Your task to perform on an android device: Open internet settings Image 0: 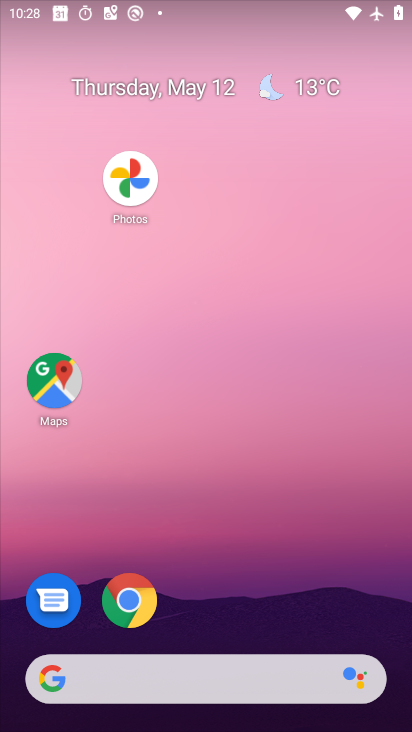
Step 0: drag from (314, 602) to (105, 109)
Your task to perform on an android device: Open internet settings Image 1: 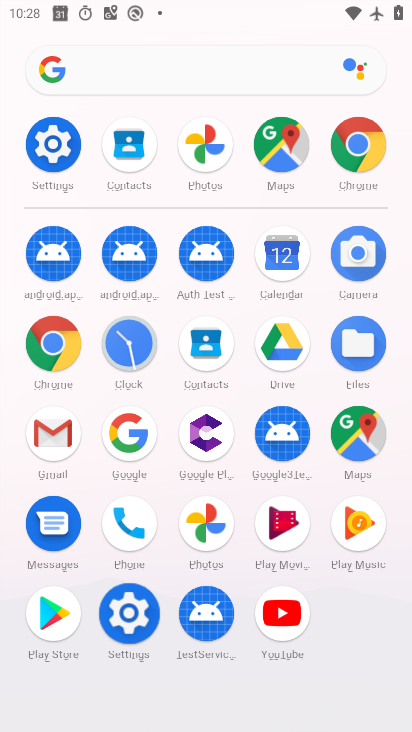
Step 1: click (56, 145)
Your task to perform on an android device: Open internet settings Image 2: 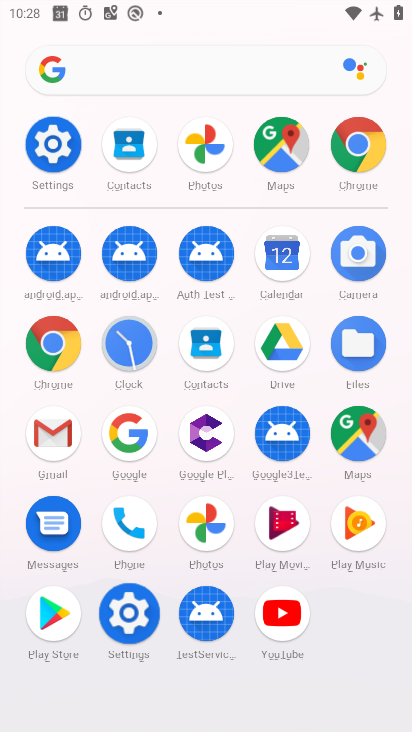
Step 2: click (56, 145)
Your task to perform on an android device: Open internet settings Image 3: 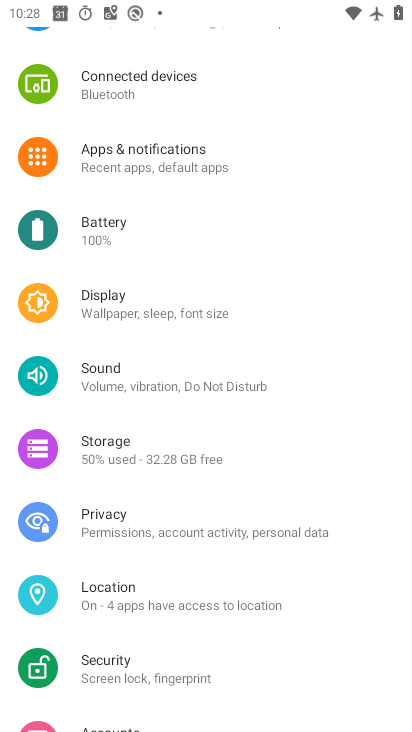
Step 3: drag from (117, 155) to (83, 626)
Your task to perform on an android device: Open internet settings Image 4: 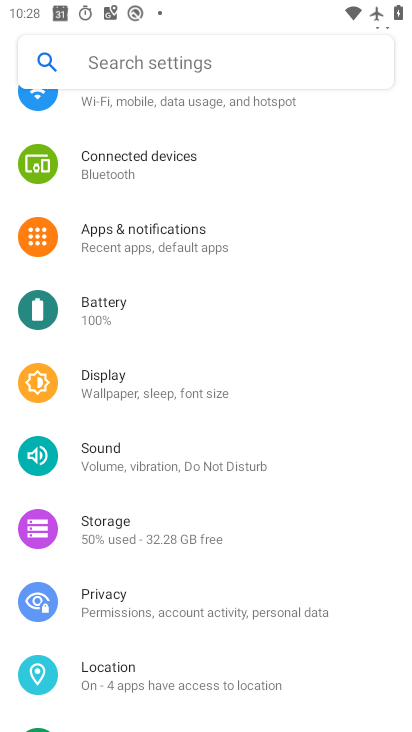
Step 4: drag from (130, 194) to (132, 448)
Your task to perform on an android device: Open internet settings Image 5: 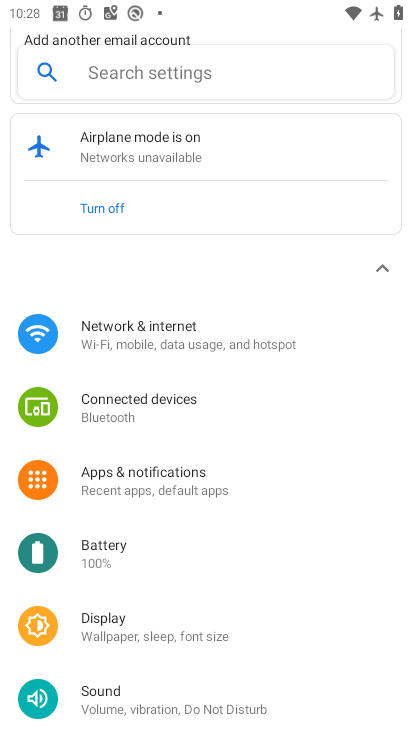
Step 5: drag from (141, 261) to (142, 677)
Your task to perform on an android device: Open internet settings Image 6: 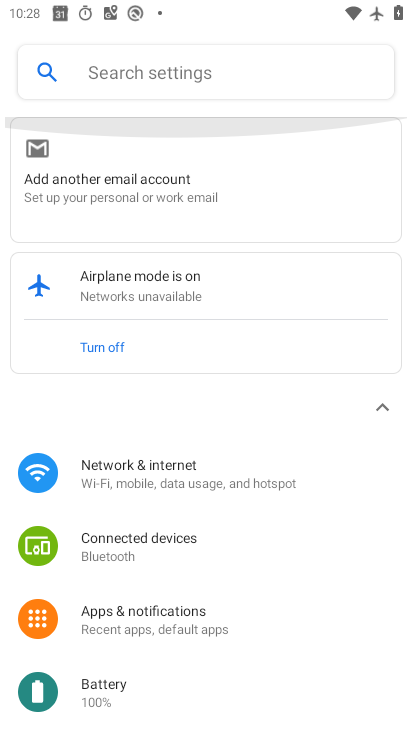
Step 6: drag from (203, 278) to (190, 707)
Your task to perform on an android device: Open internet settings Image 7: 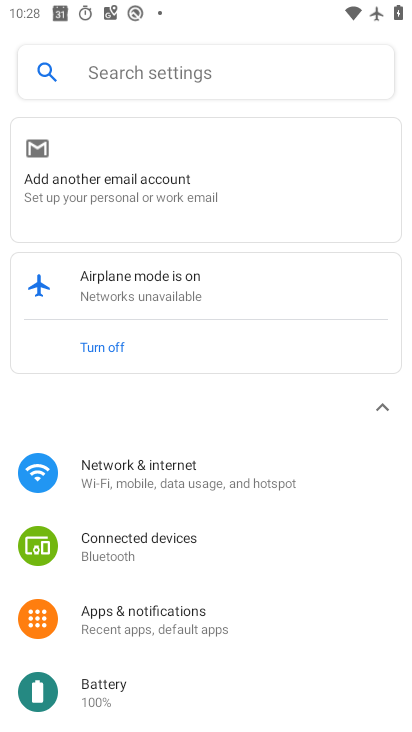
Step 7: click (166, 465)
Your task to perform on an android device: Open internet settings Image 8: 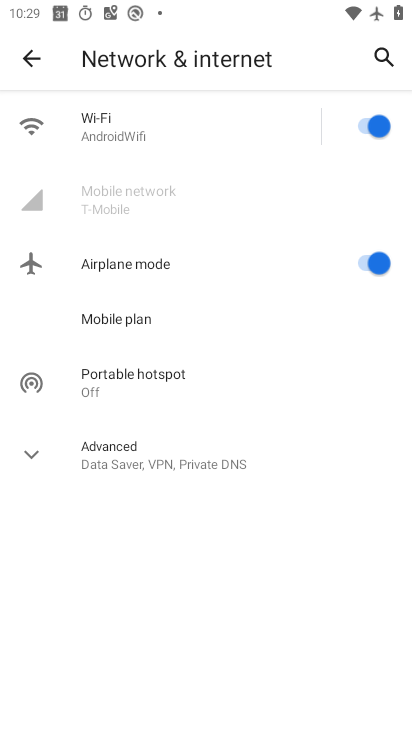
Step 8: task complete